Your task to perform on an android device: turn off priority inbox in the gmail app Image 0: 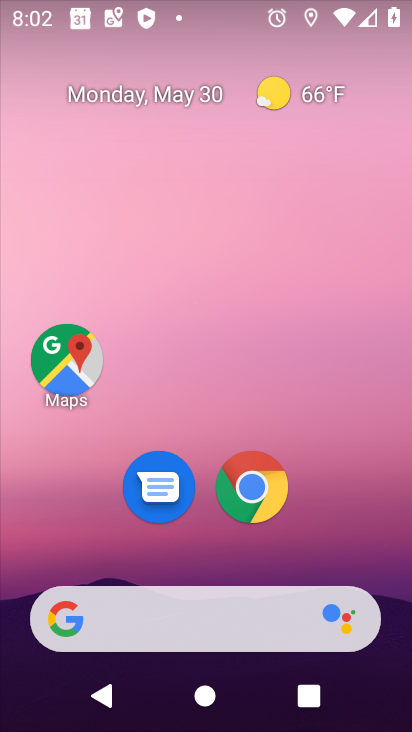
Step 0: press home button
Your task to perform on an android device: turn off priority inbox in the gmail app Image 1: 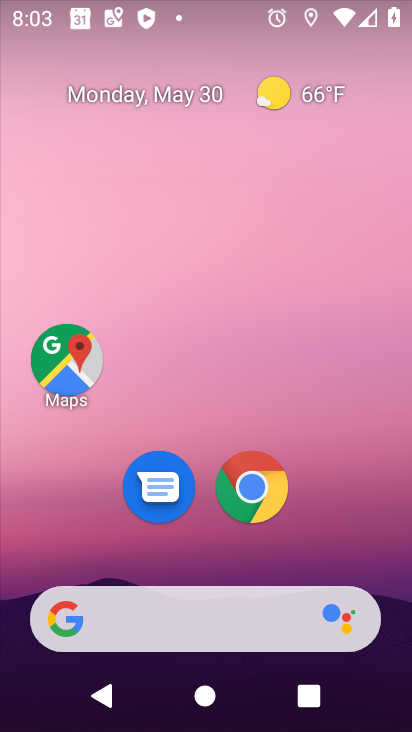
Step 1: drag from (337, 561) to (275, 0)
Your task to perform on an android device: turn off priority inbox in the gmail app Image 2: 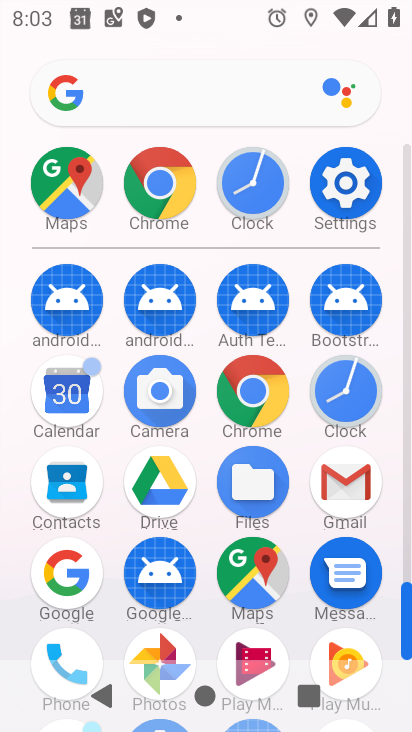
Step 2: click (335, 478)
Your task to perform on an android device: turn off priority inbox in the gmail app Image 3: 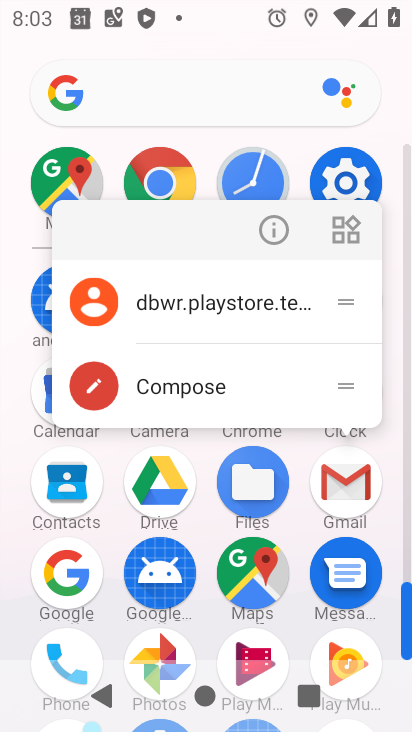
Step 3: click (351, 479)
Your task to perform on an android device: turn off priority inbox in the gmail app Image 4: 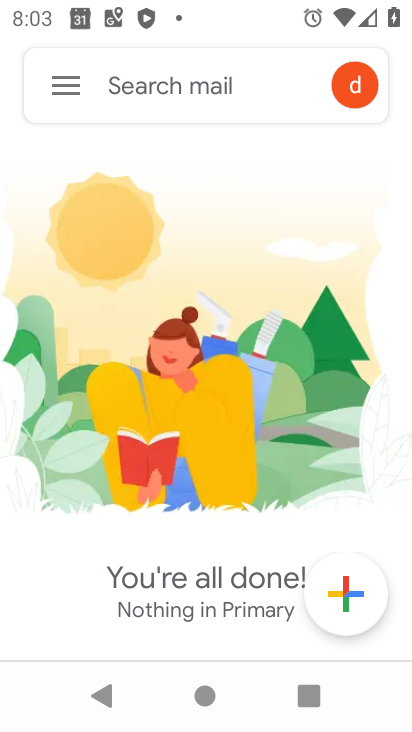
Step 4: click (69, 95)
Your task to perform on an android device: turn off priority inbox in the gmail app Image 5: 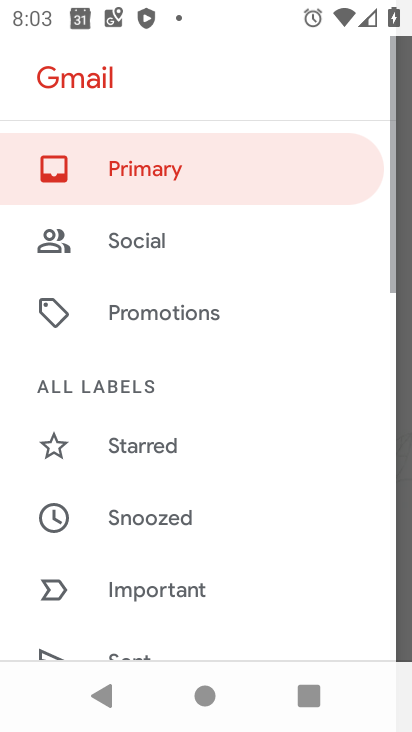
Step 5: drag from (262, 583) to (283, 202)
Your task to perform on an android device: turn off priority inbox in the gmail app Image 6: 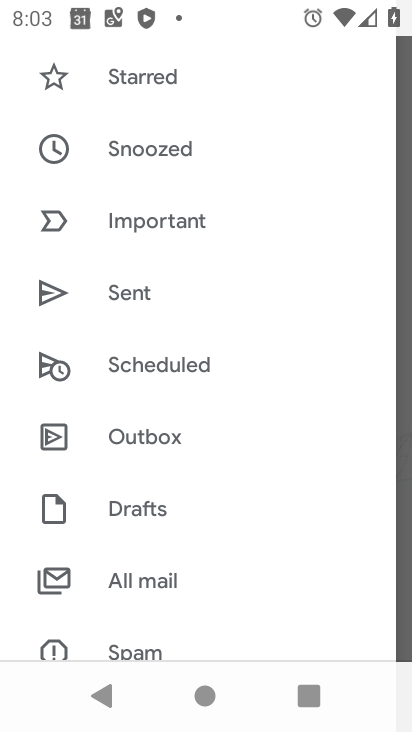
Step 6: drag from (237, 531) to (258, 170)
Your task to perform on an android device: turn off priority inbox in the gmail app Image 7: 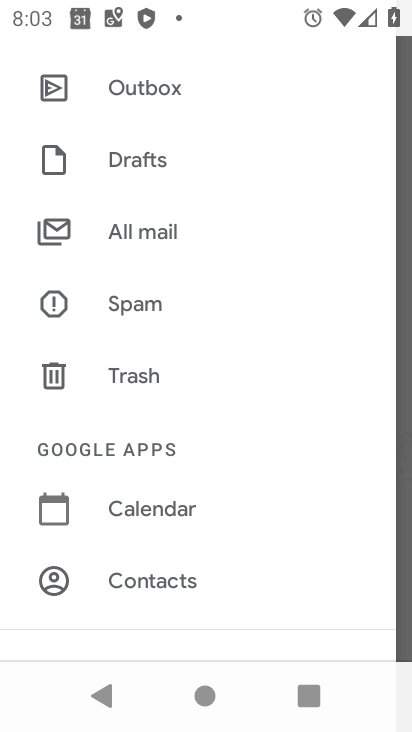
Step 7: drag from (259, 485) to (300, 223)
Your task to perform on an android device: turn off priority inbox in the gmail app Image 8: 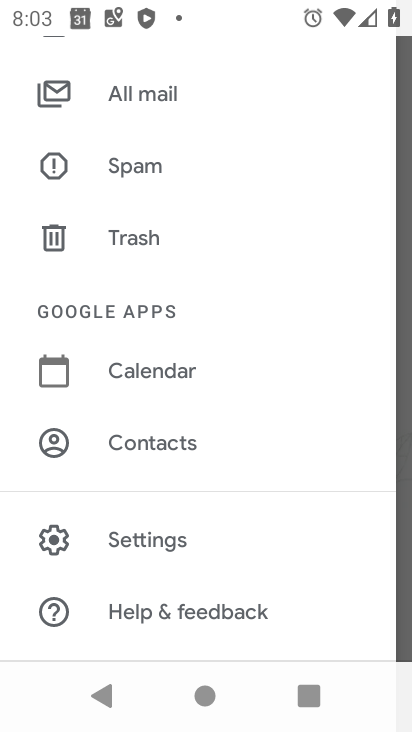
Step 8: click (149, 541)
Your task to perform on an android device: turn off priority inbox in the gmail app Image 9: 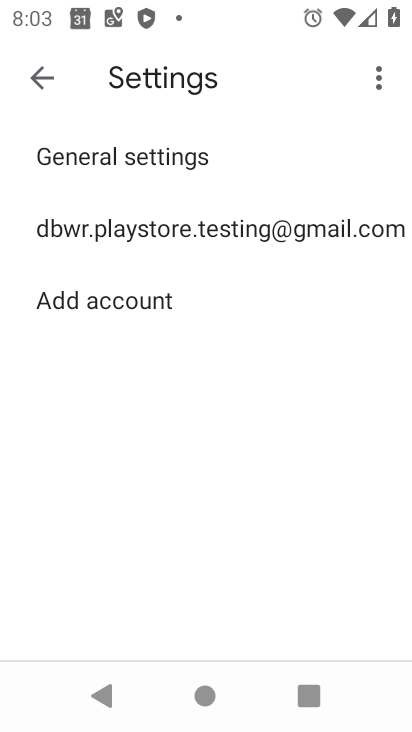
Step 9: click (152, 230)
Your task to perform on an android device: turn off priority inbox in the gmail app Image 10: 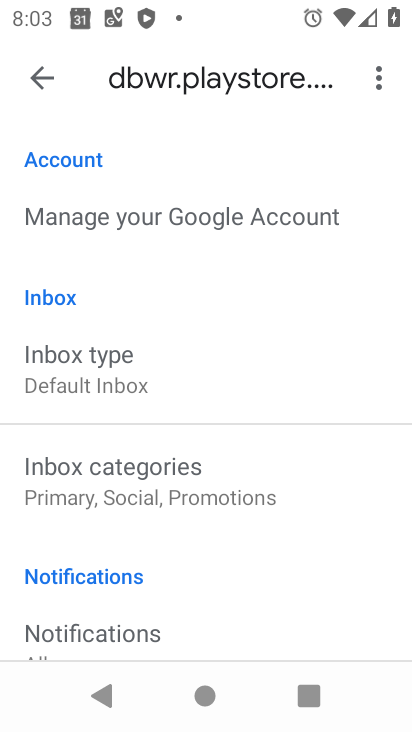
Step 10: click (100, 378)
Your task to perform on an android device: turn off priority inbox in the gmail app Image 11: 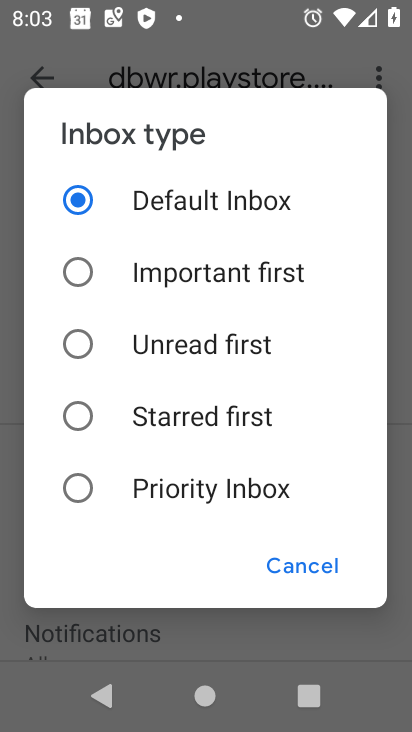
Step 11: task complete